Your task to perform on an android device: Open Reddit.com Image 0: 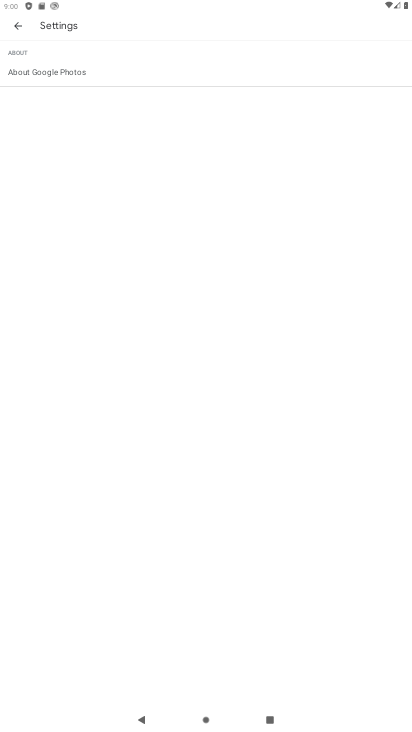
Step 0: press home button
Your task to perform on an android device: Open Reddit.com Image 1: 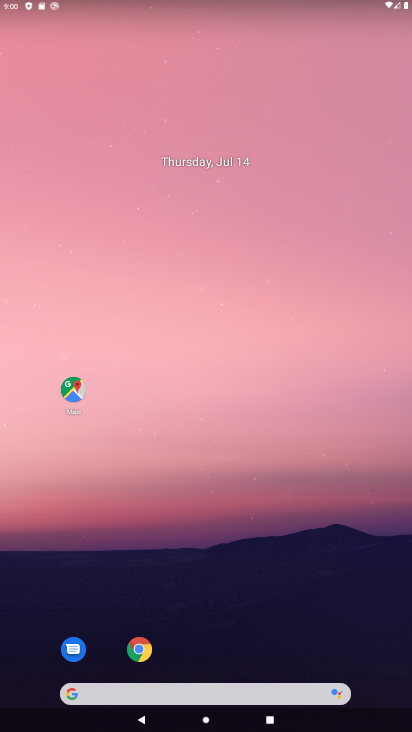
Step 1: click (148, 654)
Your task to perform on an android device: Open Reddit.com Image 2: 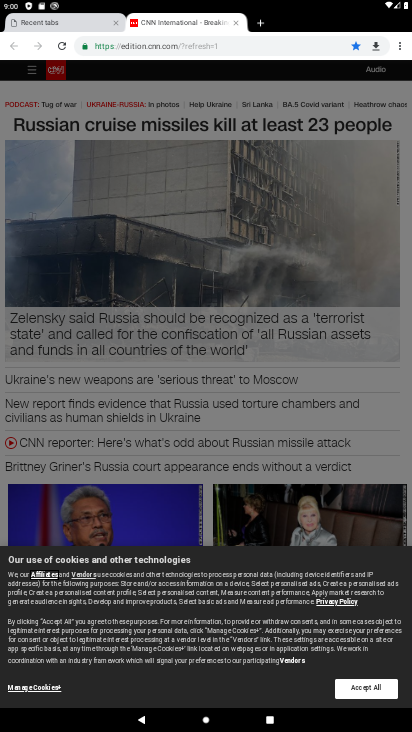
Step 2: click (263, 22)
Your task to perform on an android device: Open Reddit.com Image 3: 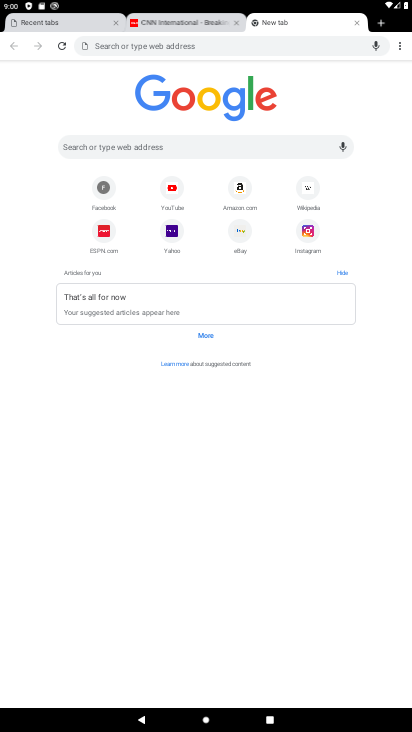
Step 3: type "Reddit.com"
Your task to perform on an android device: Open Reddit.com Image 4: 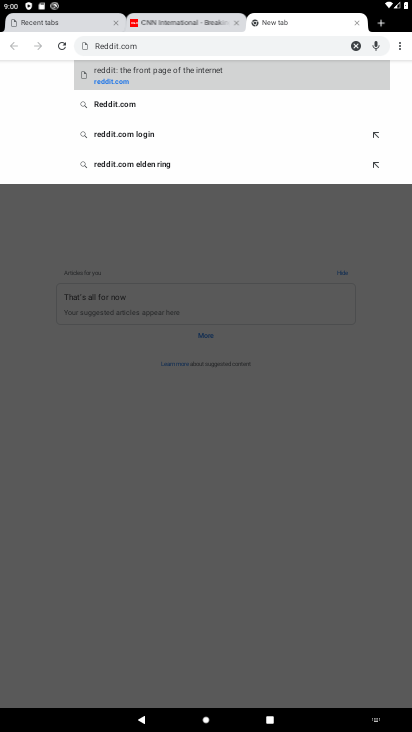
Step 4: click (108, 75)
Your task to perform on an android device: Open Reddit.com Image 5: 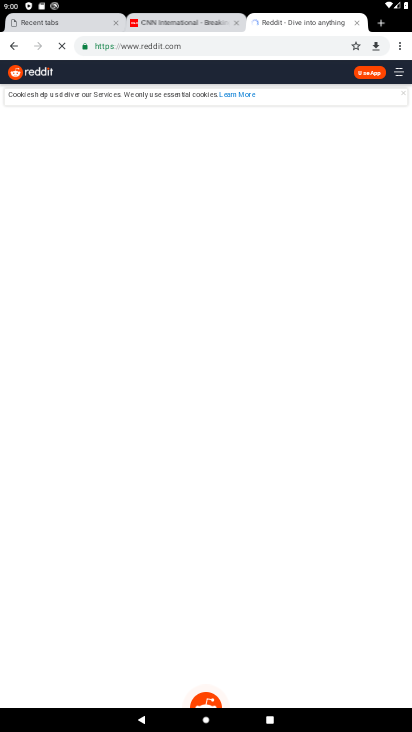
Step 5: task complete